Your task to perform on an android device: move a message to another label in the gmail app Image 0: 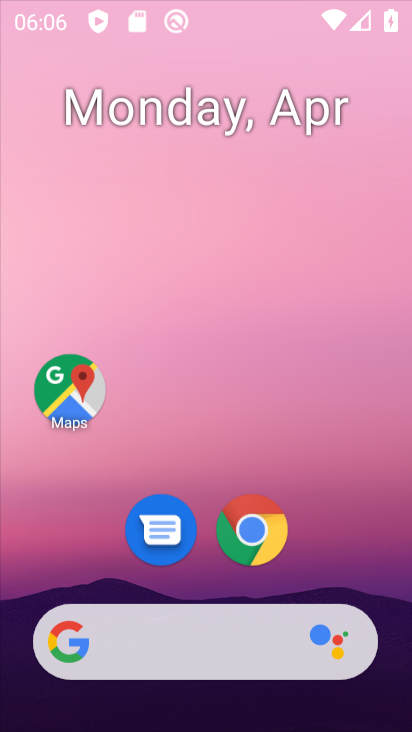
Step 0: click (221, 22)
Your task to perform on an android device: move a message to another label in the gmail app Image 1: 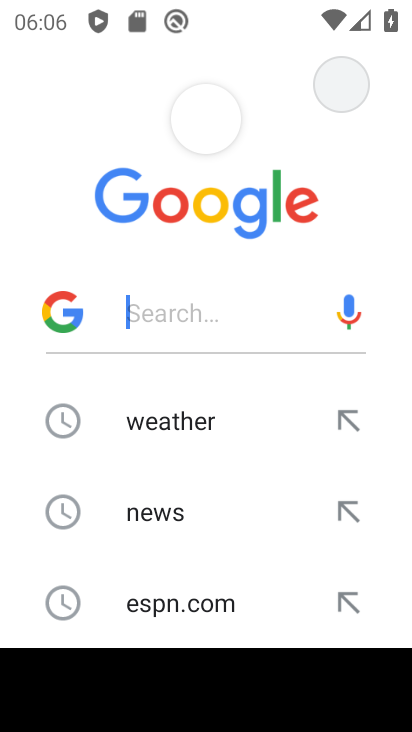
Step 1: press home button
Your task to perform on an android device: move a message to another label in the gmail app Image 2: 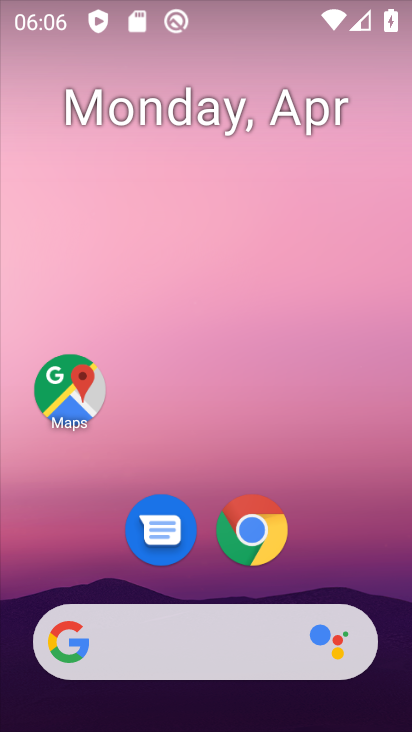
Step 2: drag from (217, 546) to (238, 104)
Your task to perform on an android device: move a message to another label in the gmail app Image 3: 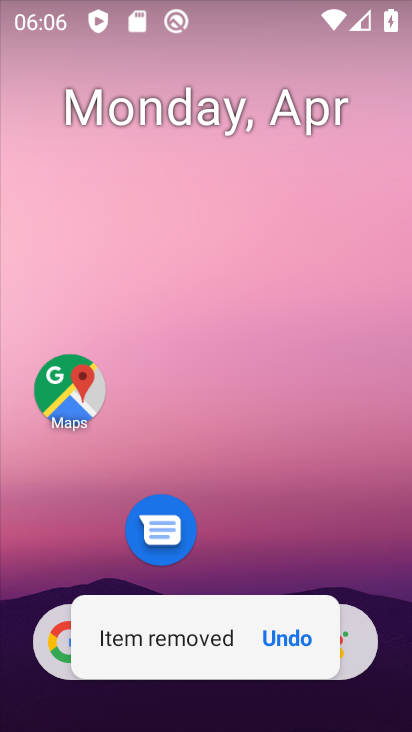
Step 3: click (281, 641)
Your task to perform on an android device: move a message to another label in the gmail app Image 4: 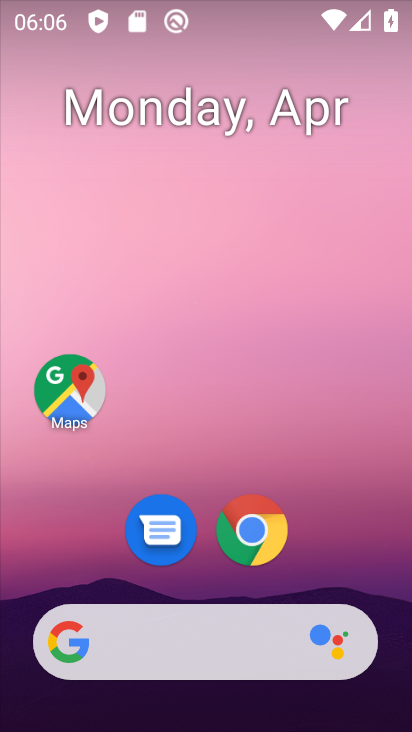
Step 4: drag from (337, 558) to (387, 68)
Your task to perform on an android device: move a message to another label in the gmail app Image 5: 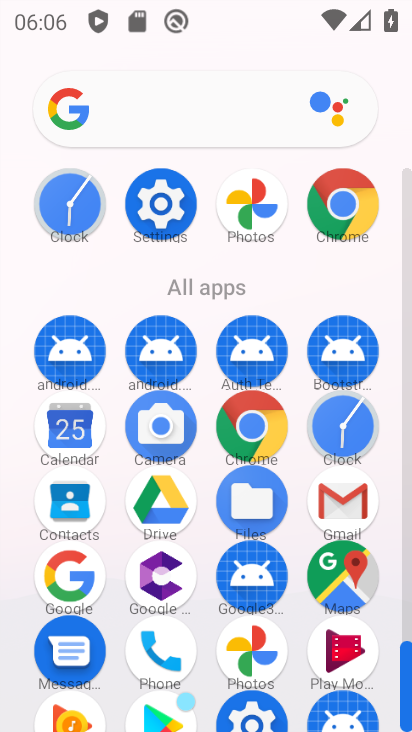
Step 5: click (346, 497)
Your task to perform on an android device: move a message to another label in the gmail app Image 6: 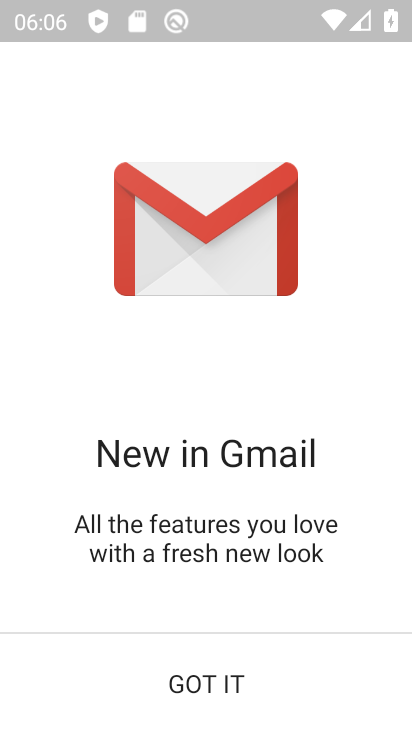
Step 6: click (211, 679)
Your task to perform on an android device: move a message to another label in the gmail app Image 7: 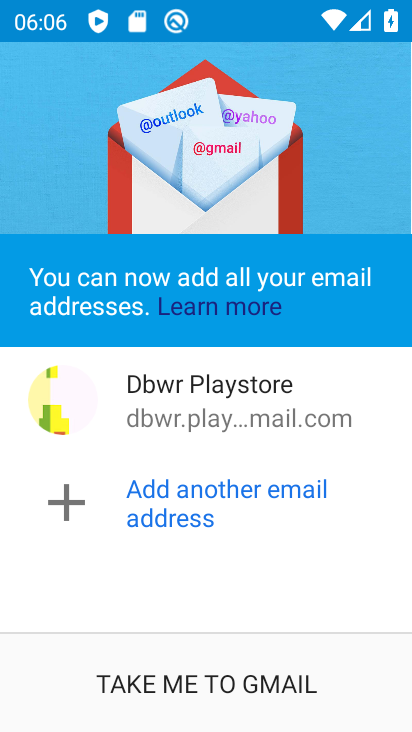
Step 7: click (211, 679)
Your task to perform on an android device: move a message to another label in the gmail app Image 8: 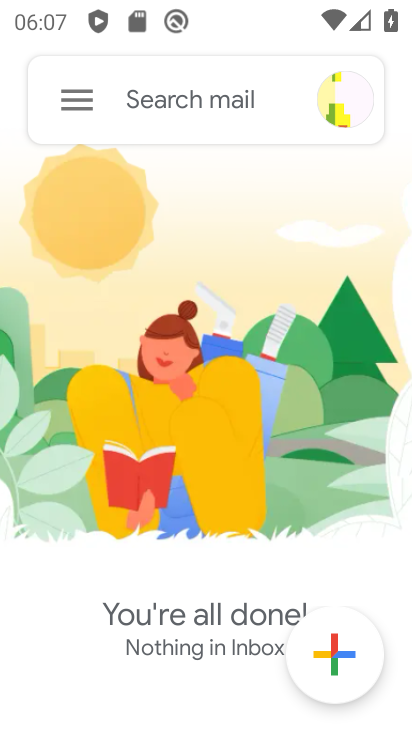
Step 8: click (70, 98)
Your task to perform on an android device: move a message to another label in the gmail app Image 9: 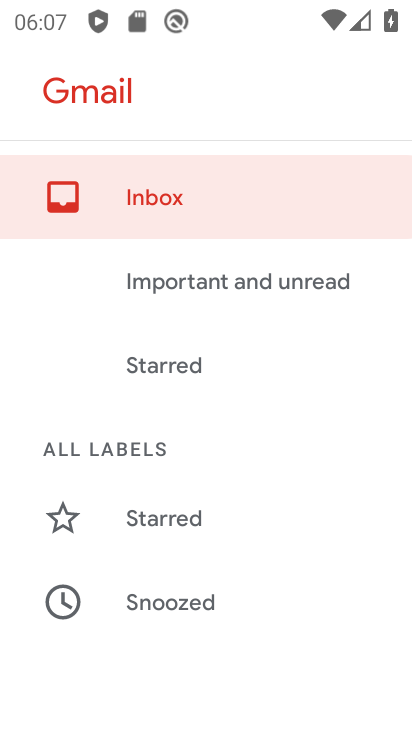
Step 9: drag from (174, 583) to (217, 124)
Your task to perform on an android device: move a message to another label in the gmail app Image 10: 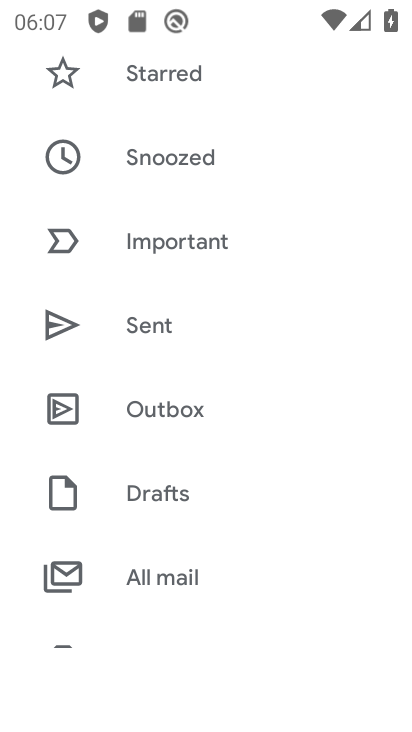
Step 10: click (202, 575)
Your task to perform on an android device: move a message to another label in the gmail app Image 11: 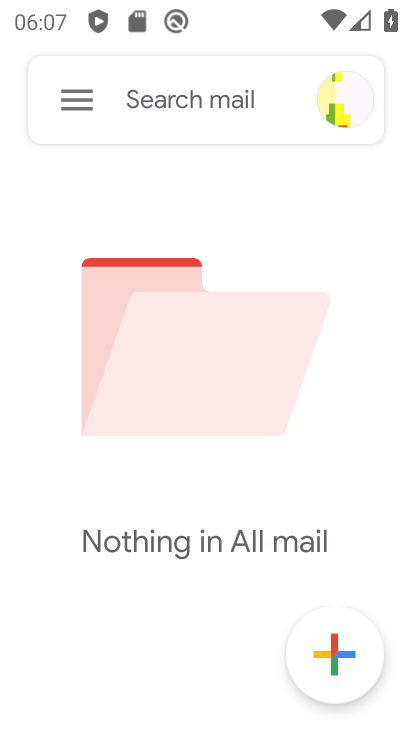
Step 11: task complete